Your task to perform on an android device: add a label to a message in the gmail app Image 0: 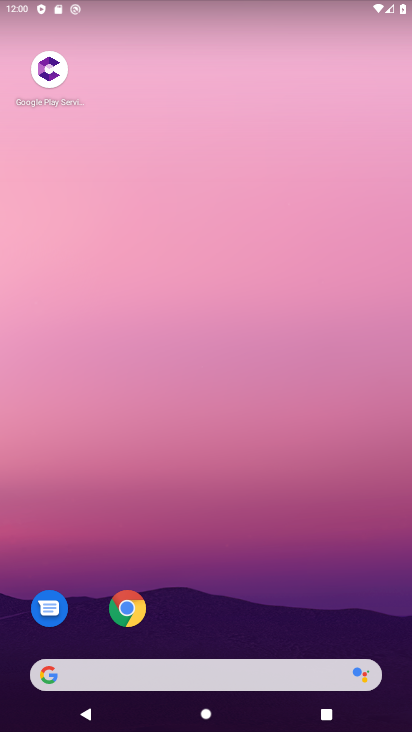
Step 0: drag from (293, 610) to (257, 200)
Your task to perform on an android device: add a label to a message in the gmail app Image 1: 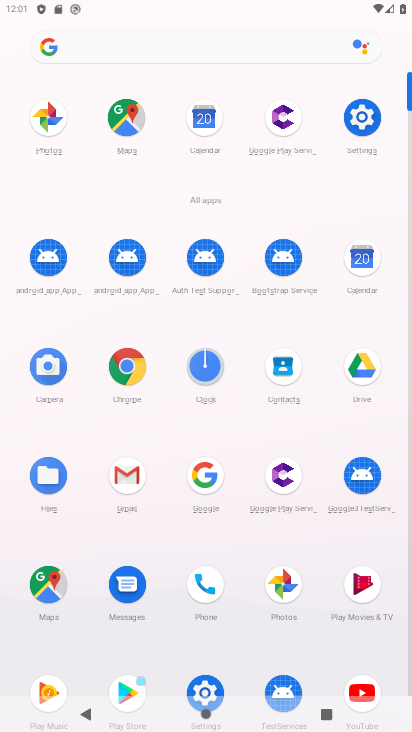
Step 1: click (127, 478)
Your task to perform on an android device: add a label to a message in the gmail app Image 2: 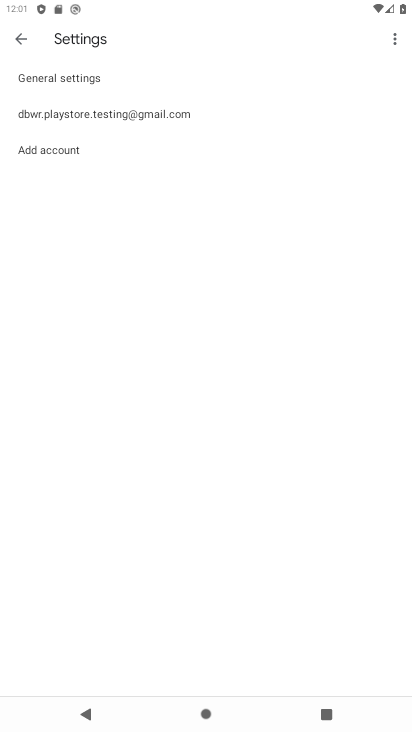
Step 2: click (184, 109)
Your task to perform on an android device: add a label to a message in the gmail app Image 3: 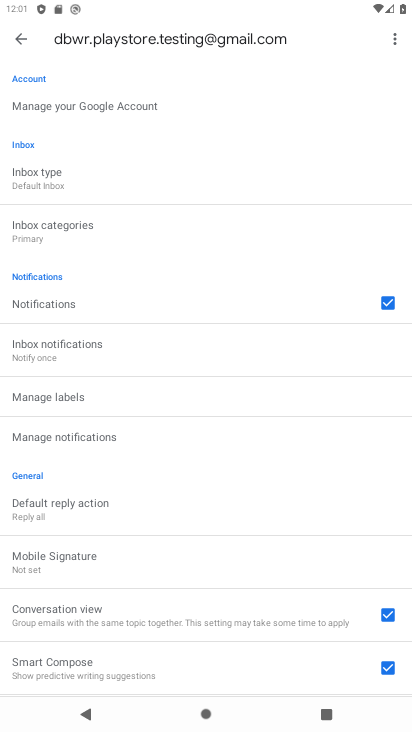
Step 3: click (14, 43)
Your task to perform on an android device: add a label to a message in the gmail app Image 4: 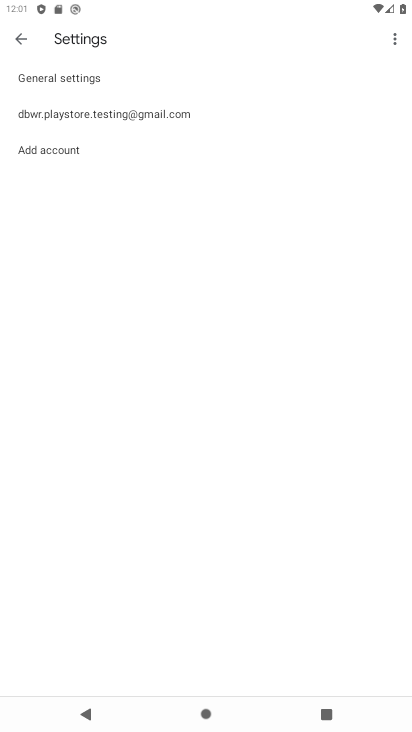
Step 4: click (14, 46)
Your task to perform on an android device: add a label to a message in the gmail app Image 5: 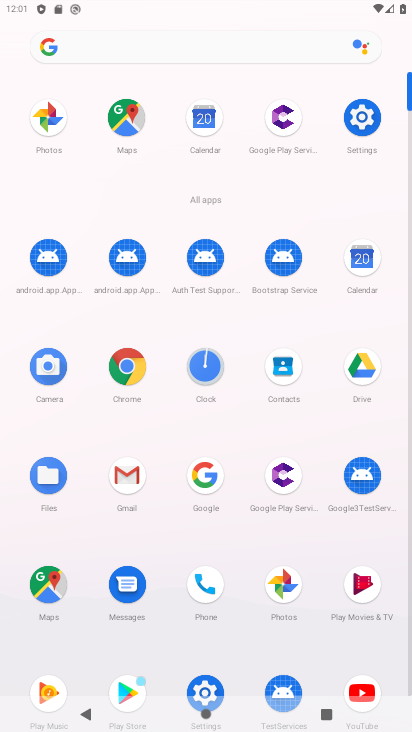
Step 5: click (127, 477)
Your task to perform on an android device: add a label to a message in the gmail app Image 6: 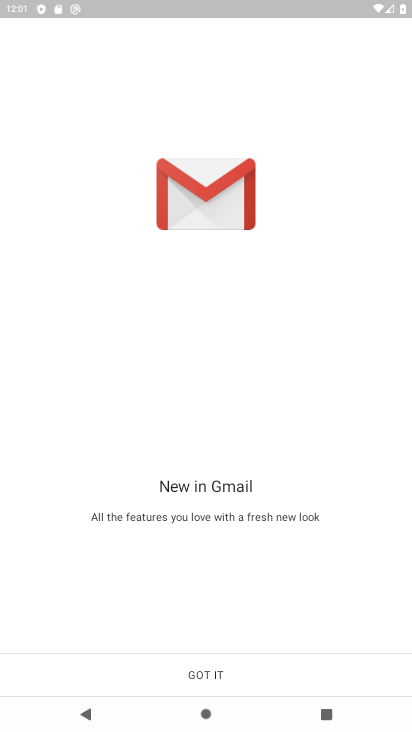
Step 6: click (220, 657)
Your task to perform on an android device: add a label to a message in the gmail app Image 7: 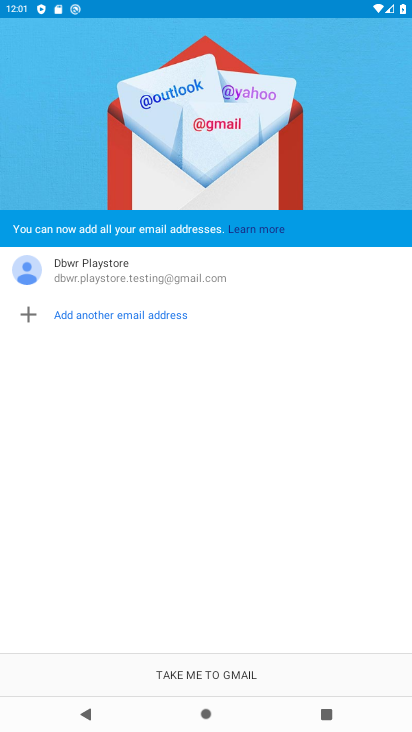
Step 7: click (224, 673)
Your task to perform on an android device: add a label to a message in the gmail app Image 8: 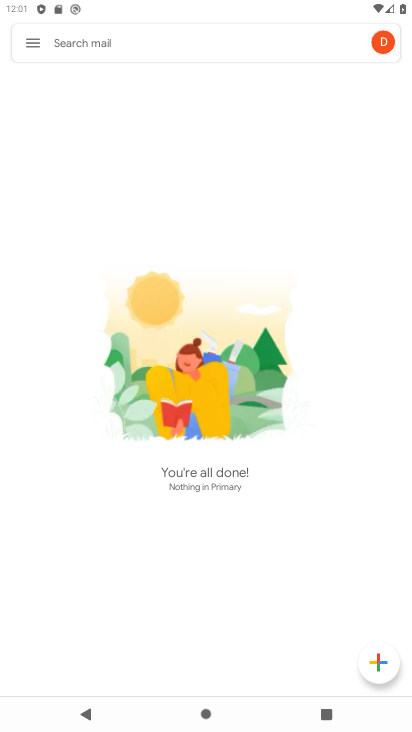
Step 8: click (29, 47)
Your task to perform on an android device: add a label to a message in the gmail app Image 9: 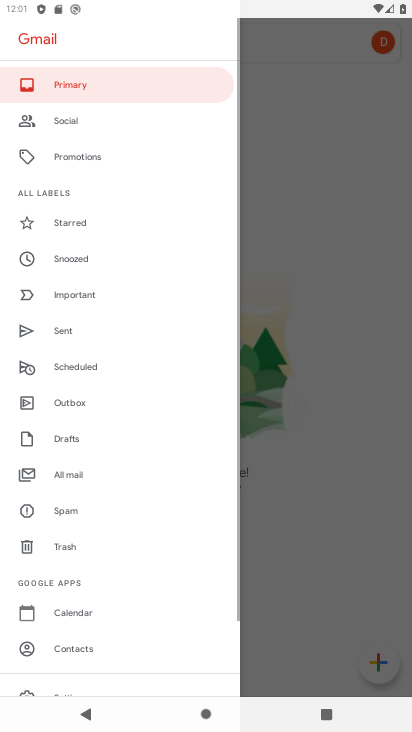
Step 9: click (96, 472)
Your task to perform on an android device: add a label to a message in the gmail app Image 10: 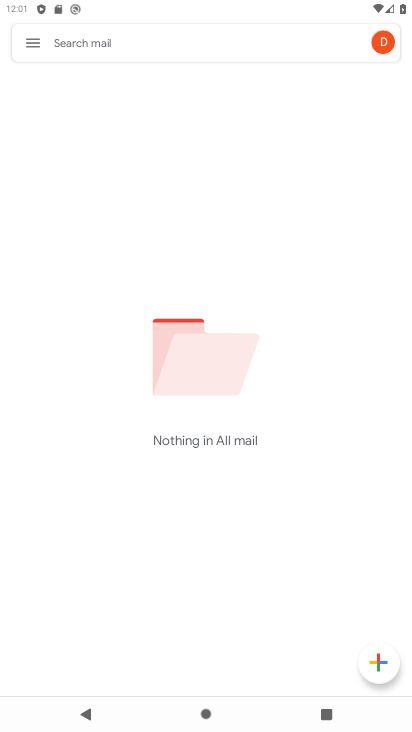
Step 10: task complete